Your task to perform on an android device: Search for "jbl flip 4" on amazon.com, select the first entry, and add it to the cart. Image 0: 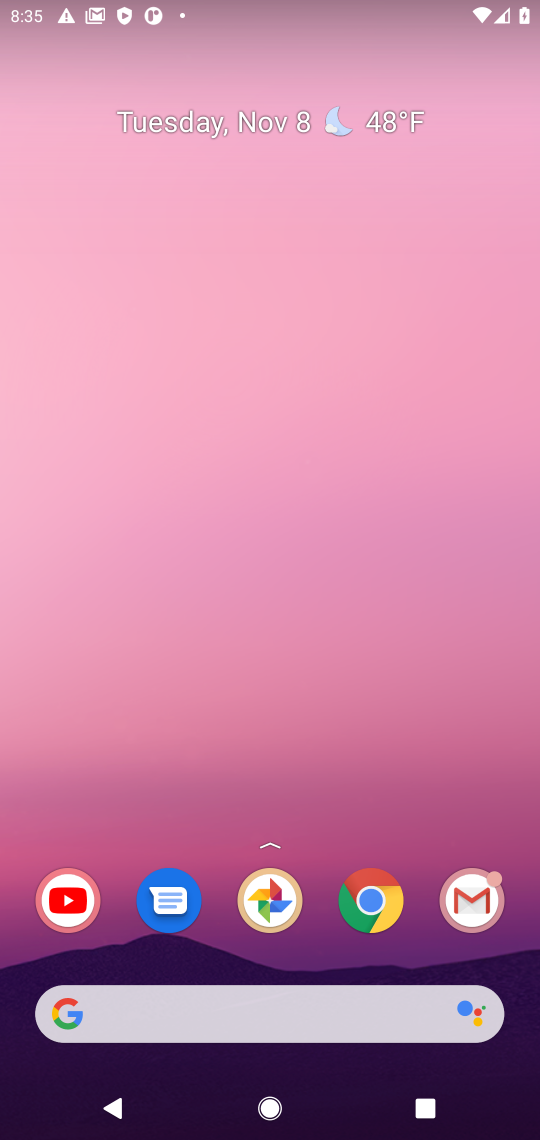
Step 0: click (353, 899)
Your task to perform on an android device: Search for "jbl flip 4" on amazon.com, select the first entry, and add it to the cart. Image 1: 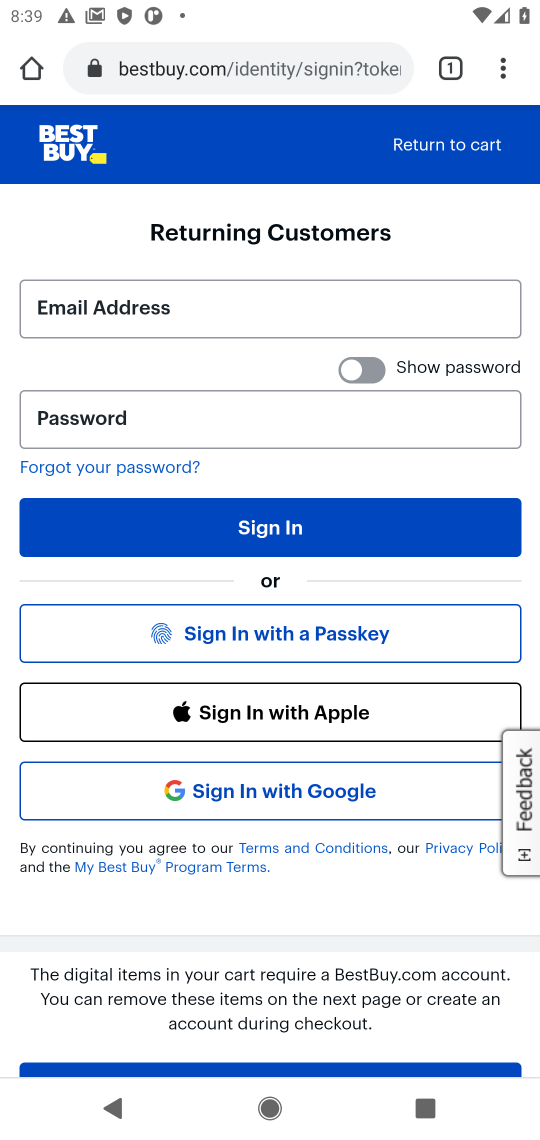
Step 1: click (245, 65)
Your task to perform on an android device: Search for "jbl flip 4" on amazon.com, select the first entry, and add it to the cart. Image 2: 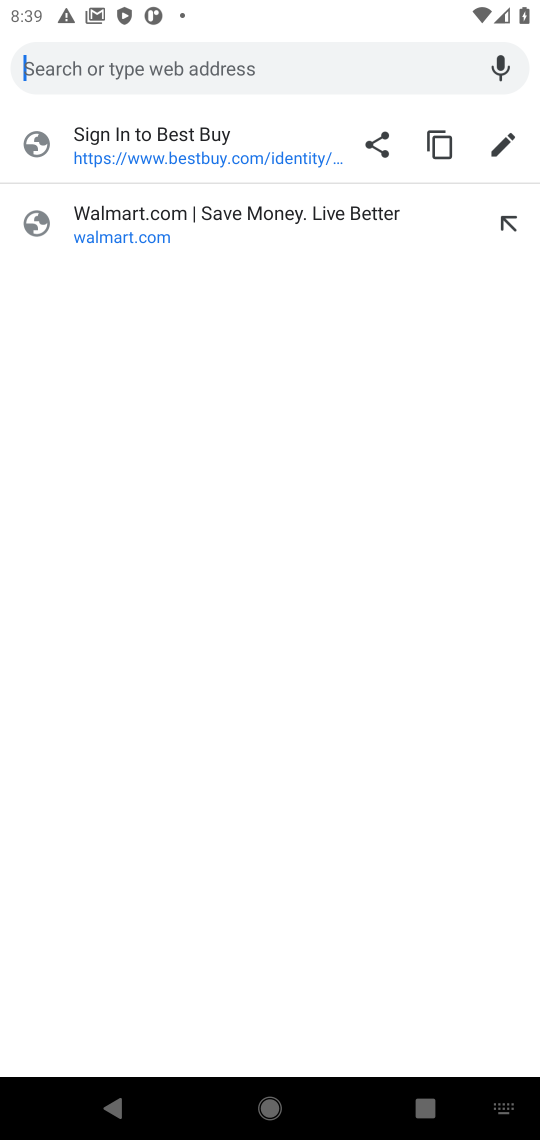
Step 2: type "amazon"
Your task to perform on an android device: Search for "jbl flip 4" on amazon.com, select the first entry, and add it to the cart. Image 3: 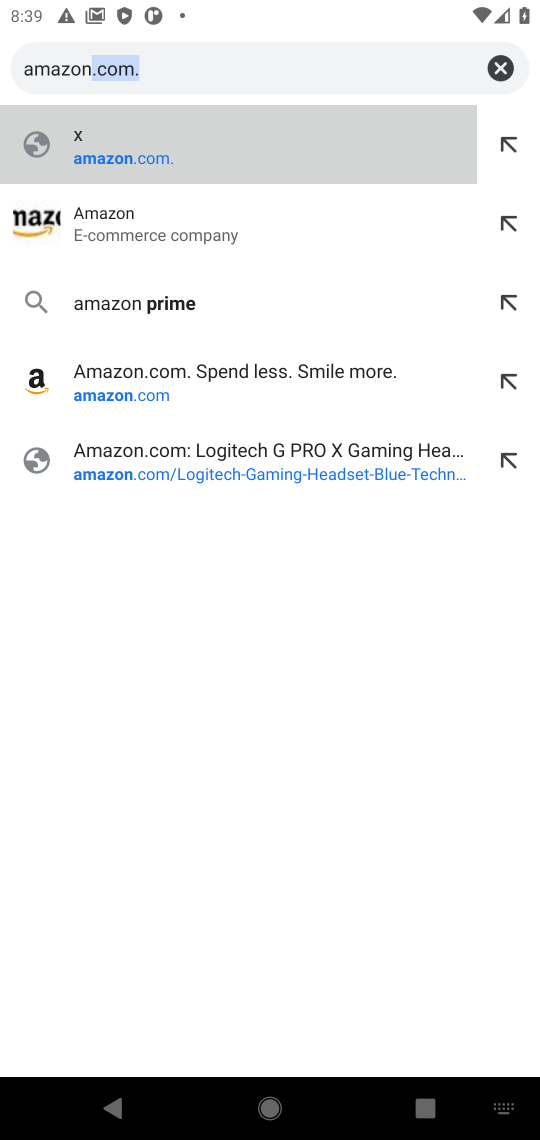
Step 3: click (91, 223)
Your task to perform on an android device: Search for "jbl flip 4" on amazon.com, select the first entry, and add it to the cart. Image 4: 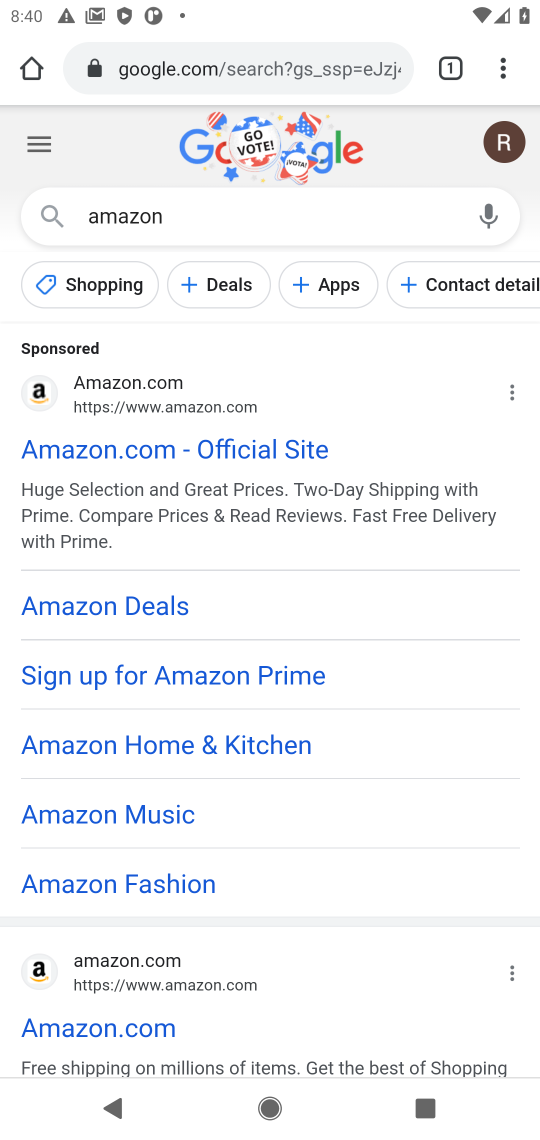
Step 4: click (31, 460)
Your task to perform on an android device: Search for "jbl flip 4" on amazon.com, select the first entry, and add it to the cart. Image 5: 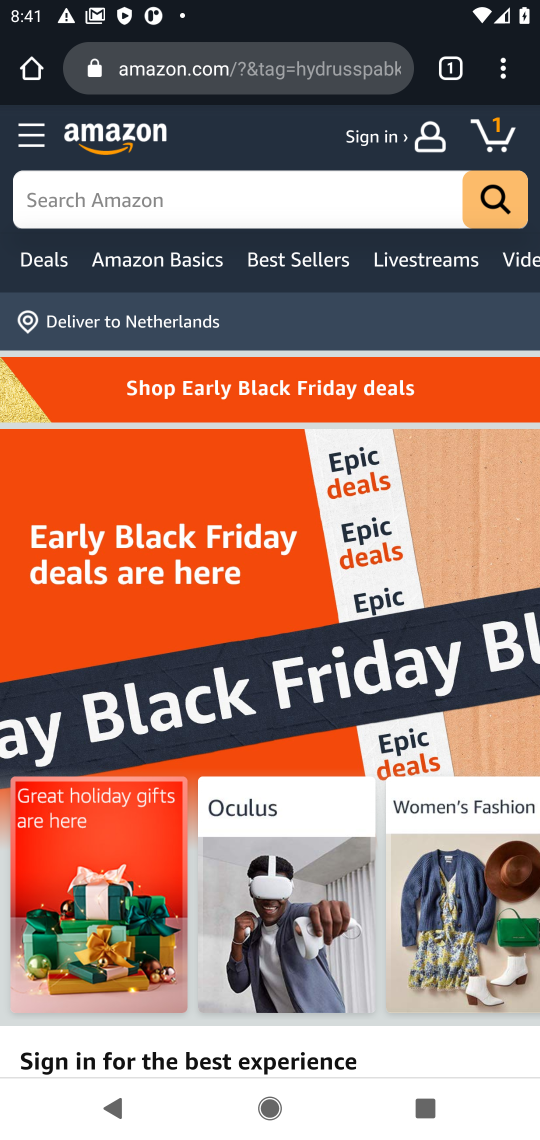
Step 5: click (161, 196)
Your task to perform on an android device: Search for "jbl flip 4" on amazon.com, select the first entry, and add it to the cart. Image 6: 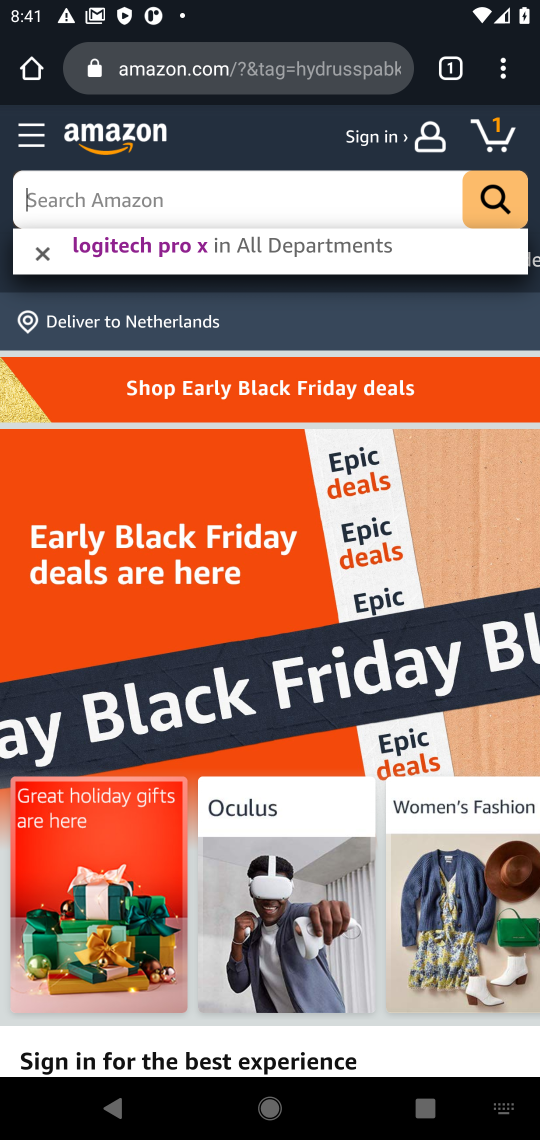
Step 6: type "jbl flip 4"
Your task to perform on an android device: Search for "jbl flip 4" on amazon.com, select the first entry, and add it to the cart. Image 7: 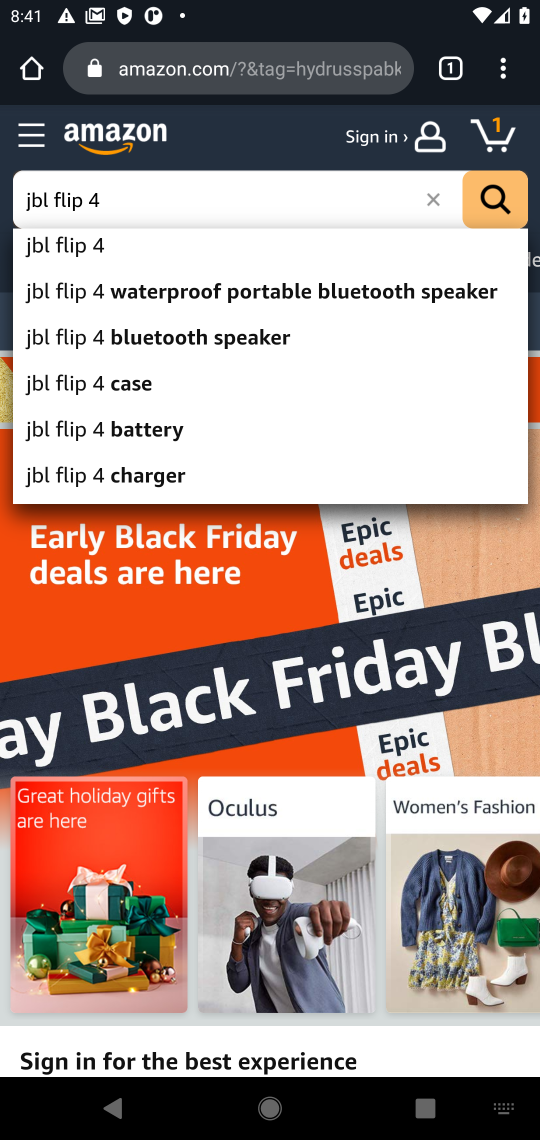
Step 7: click (73, 245)
Your task to perform on an android device: Search for "jbl flip 4" on amazon.com, select the first entry, and add it to the cart. Image 8: 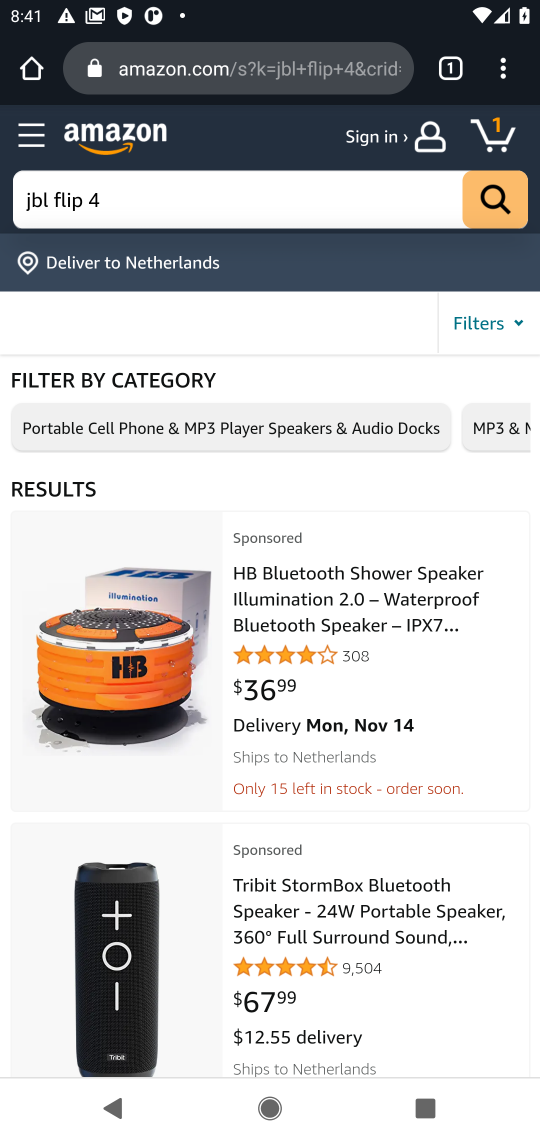
Step 8: drag from (295, 952) to (290, 483)
Your task to perform on an android device: Search for "jbl flip 4" on amazon.com, select the first entry, and add it to the cart. Image 9: 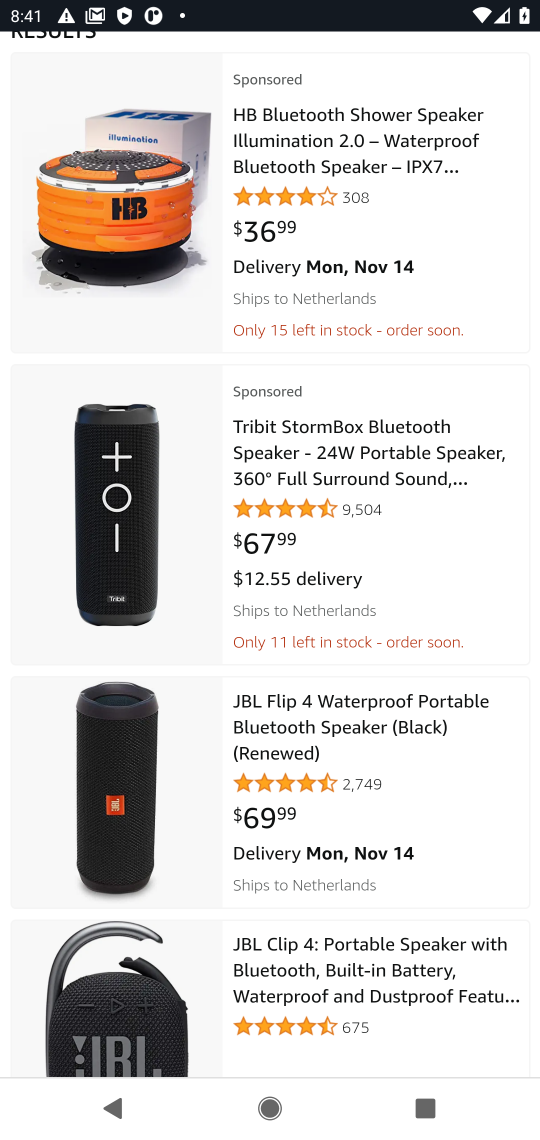
Step 9: click (281, 698)
Your task to perform on an android device: Search for "jbl flip 4" on amazon.com, select the first entry, and add it to the cart. Image 10: 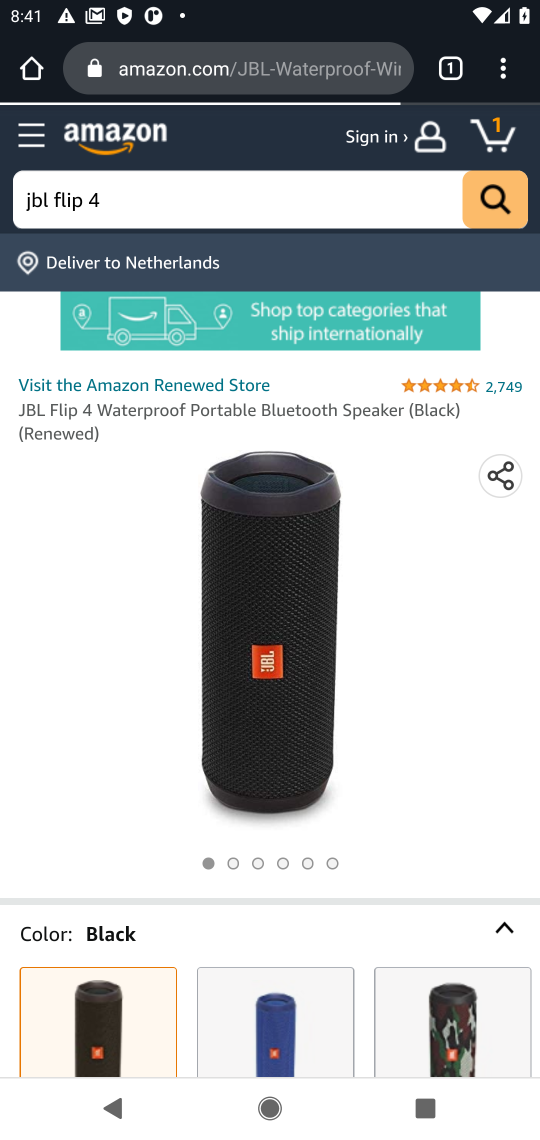
Step 10: drag from (270, 747) to (257, 469)
Your task to perform on an android device: Search for "jbl flip 4" on amazon.com, select the first entry, and add it to the cart. Image 11: 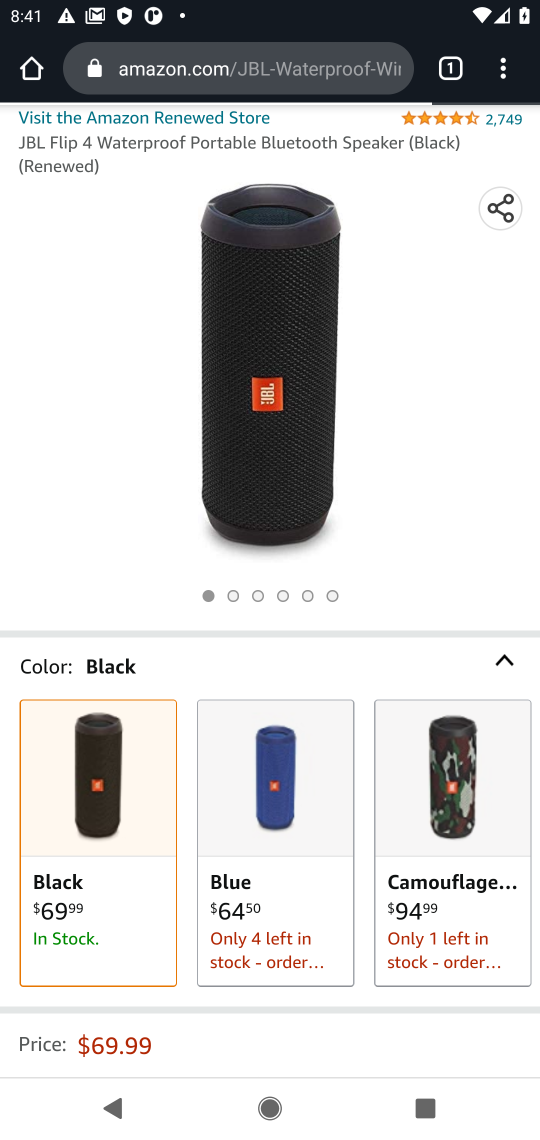
Step 11: drag from (260, 840) to (313, 315)
Your task to perform on an android device: Search for "jbl flip 4" on amazon.com, select the first entry, and add it to the cart. Image 12: 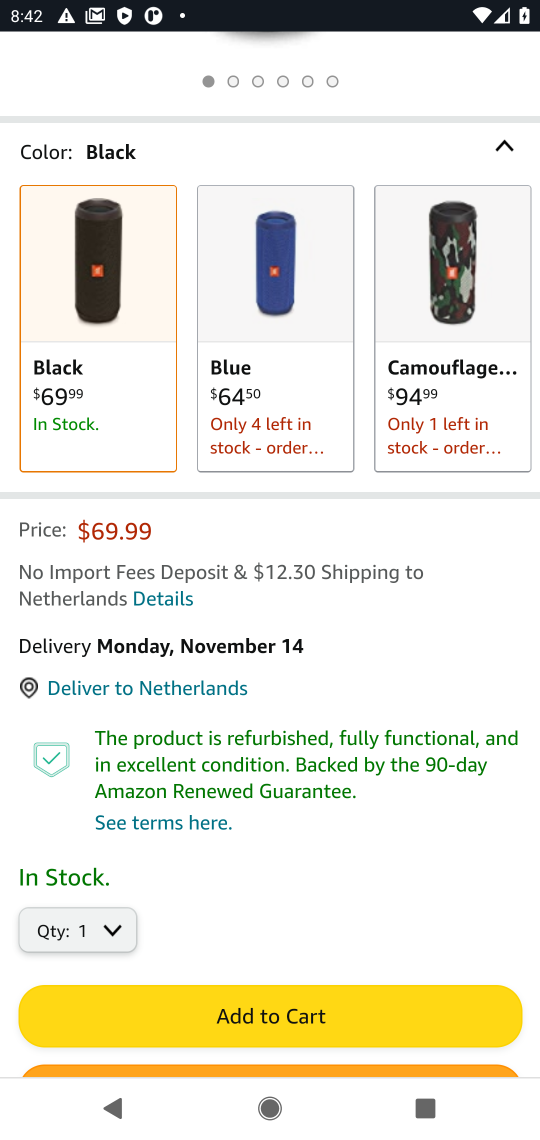
Step 12: click (269, 1022)
Your task to perform on an android device: Search for "jbl flip 4" on amazon.com, select the first entry, and add it to the cart. Image 13: 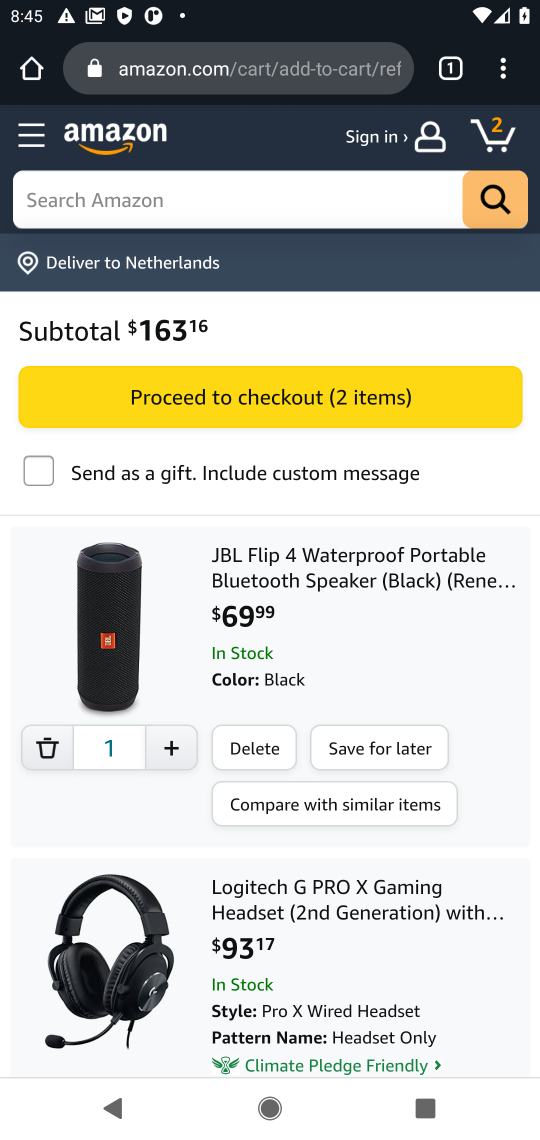
Step 13: click (320, 560)
Your task to perform on an android device: Search for "jbl flip 4" on amazon.com, select the first entry, and add it to the cart. Image 14: 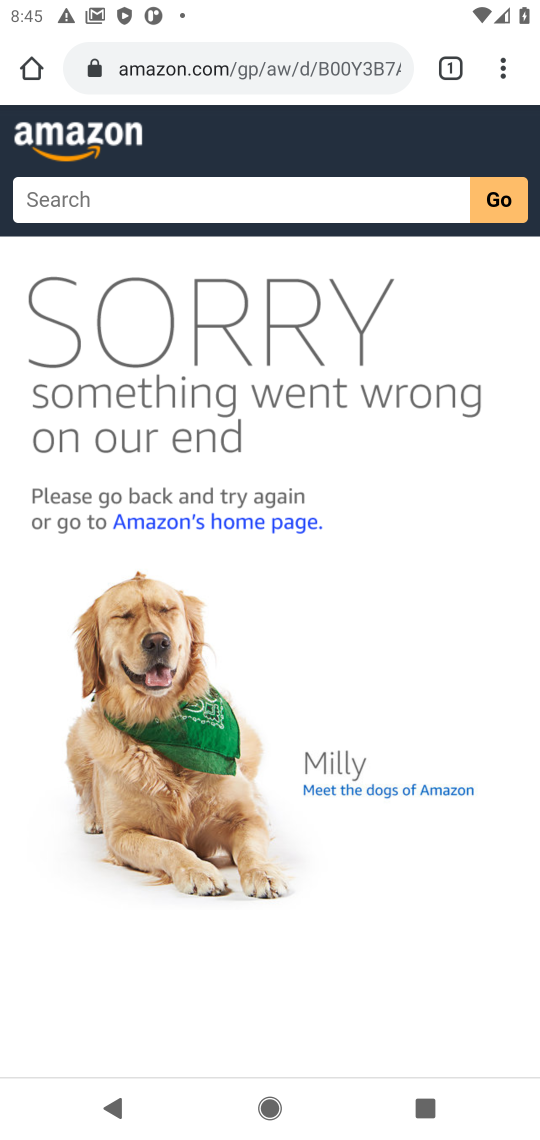
Step 14: task complete